Your task to perform on an android device: toggle location history Image 0: 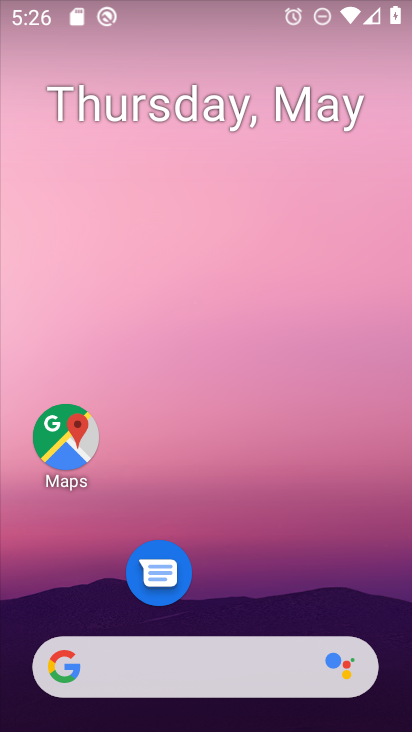
Step 0: drag from (243, 587) to (238, 13)
Your task to perform on an android device: toggle location history Image 1: 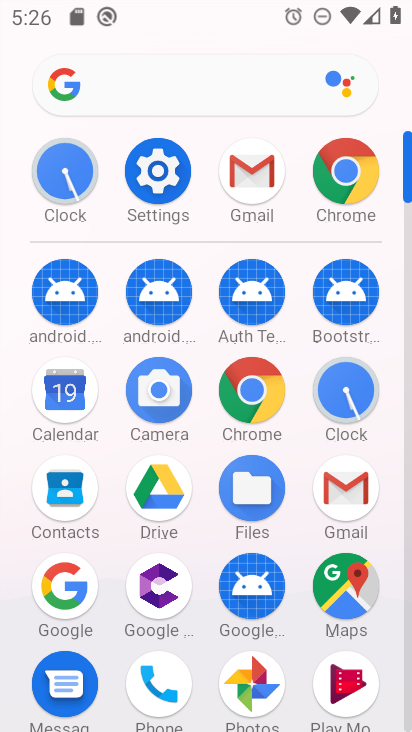
Step 1: click (152, 170)
Your task to perform on an android device: toggle location history Image 2: 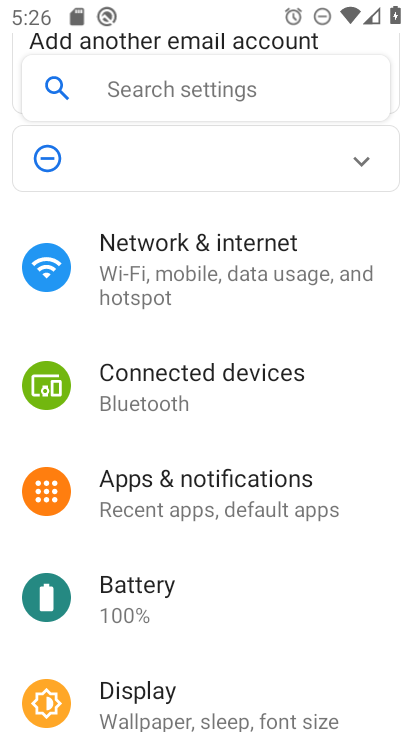
Step 2: drag from (184, 592) to (211, 131)
Your task to perform on an android device: toggle location history Image 3: 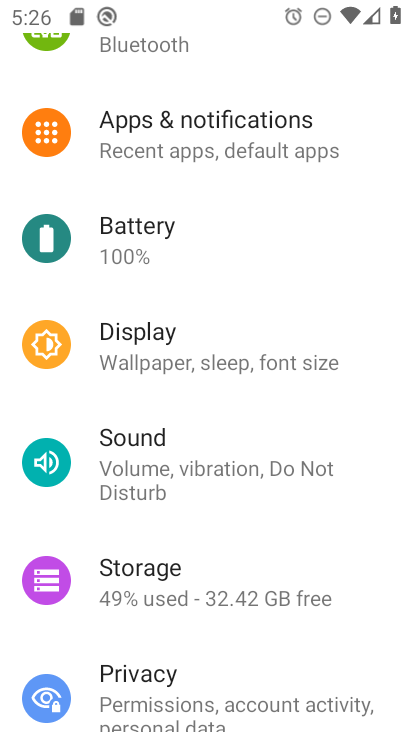
Step 3: drag from (189, 417) to (203, 181)
Your task to perform on an android device: toggle location history Image 4: 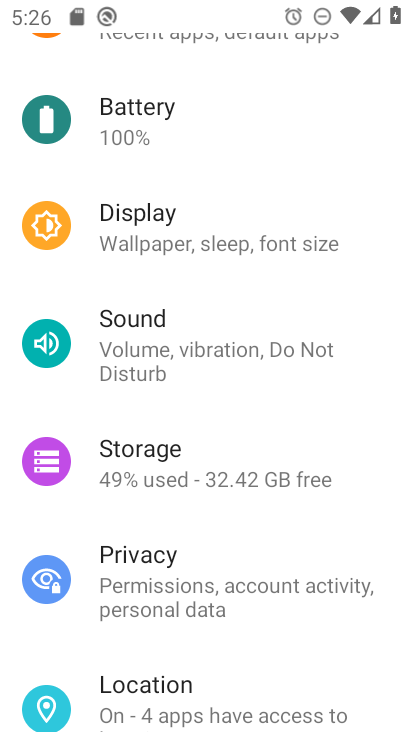
Step 4: click (117, 706)
Your task to perform on an android device: toggle location history Image 5: 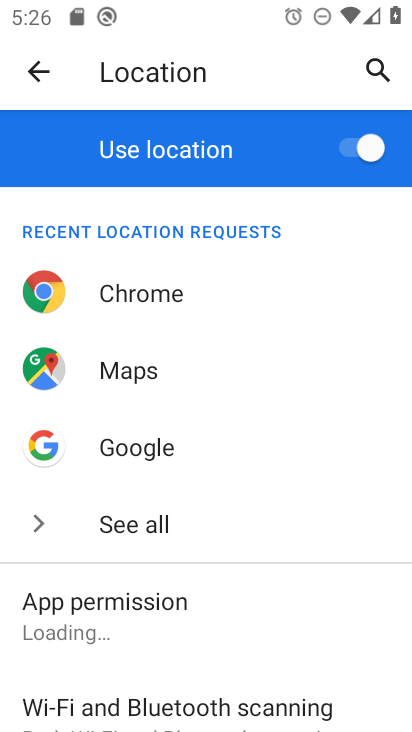
Step 5: drag from (178, 509) to (178, 279)
Your task to perform on an android device: toggle location history Image 6: 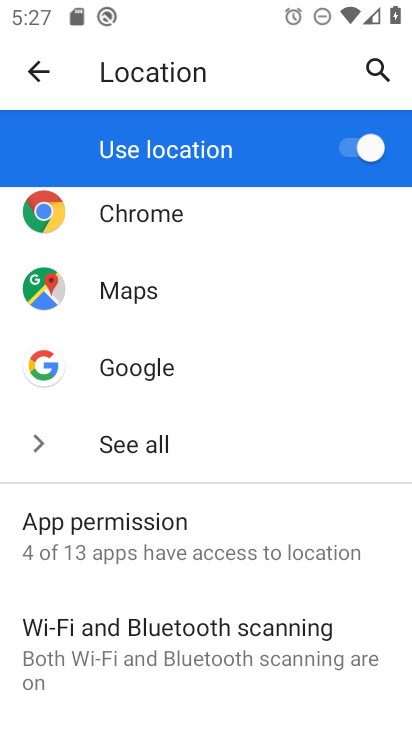
Step 6: drag from (169, 664) to (191, 294)
Your task to perform on an android device: toggle location history Image 7: 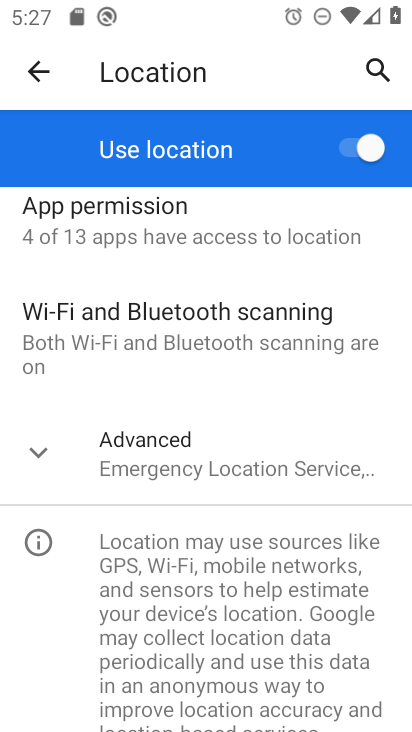
Step 7: click (125, 456)
Your task to perform on an android device: toggle location history Image 8: 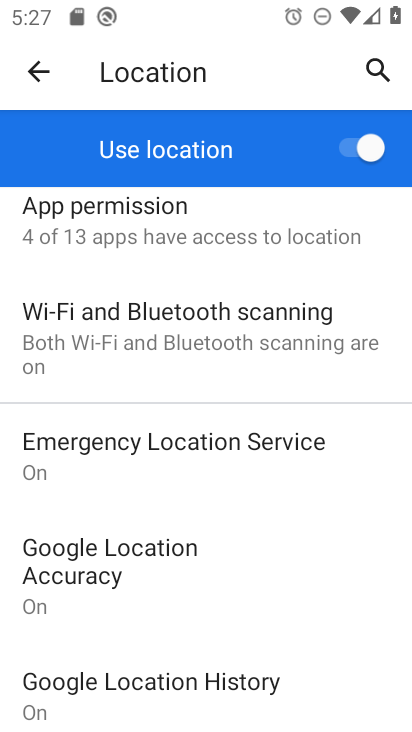
Step 8: click (177, 697)
Your task to perform on an android device: toggle location history Image 9: 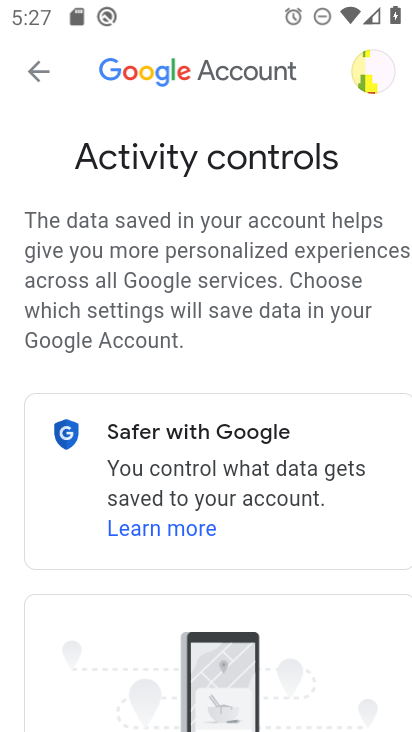
Step 9: drag from (239, 412) to (204, 171)
Your task to perform on an android device: toggle location history Image 10: 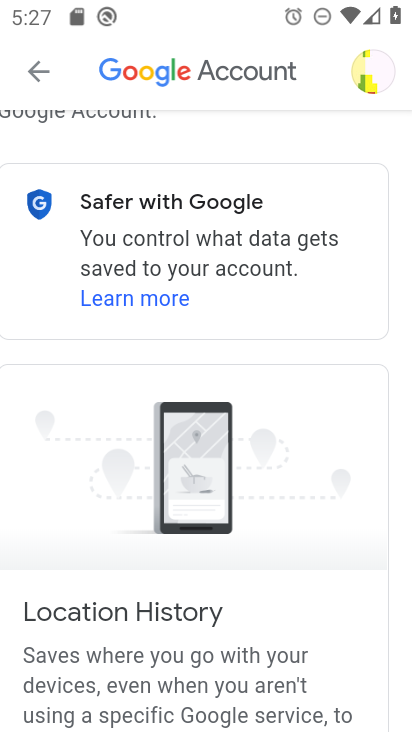
Step 10: drag from (132, 695) to (204, 212)
Your task to perform on an android device: toggle location history Image 11: 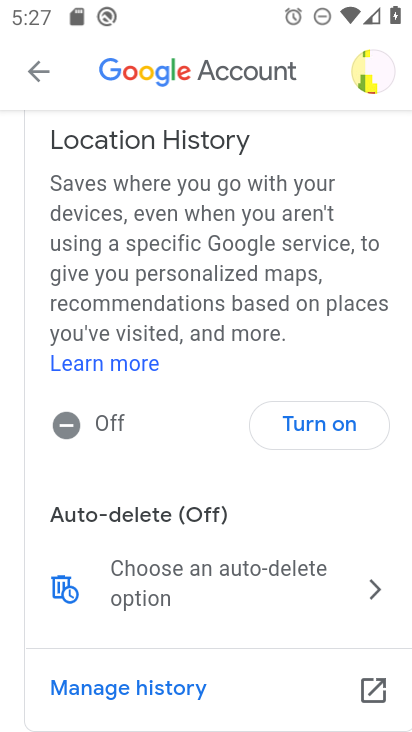
Step 11: click (310, 424)
Your task to perform on an android device: toggle location history Image 12: 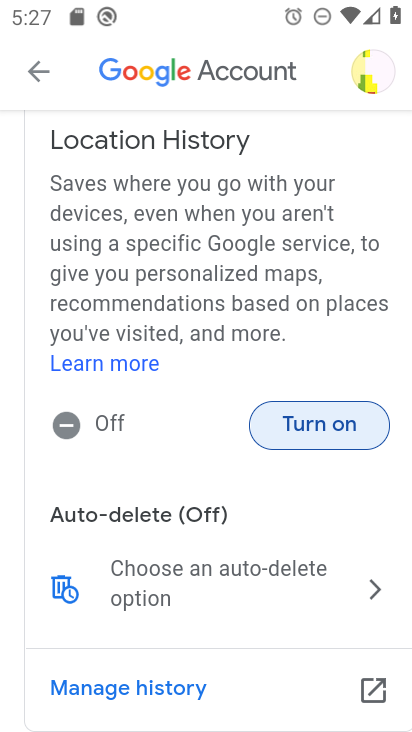
Step 12: click (310, 424)
Your task to perform on an android device: toggle location history Image 13: 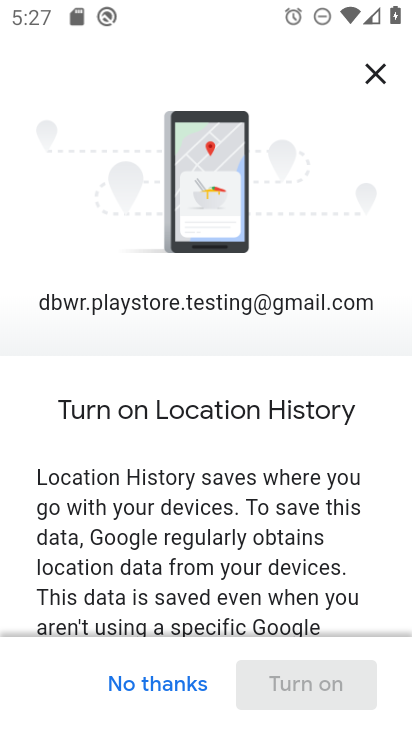
Step 13: drag from (253, 362) to (258, 235)
Your task to perform on an android device: toggle location history Image 14: 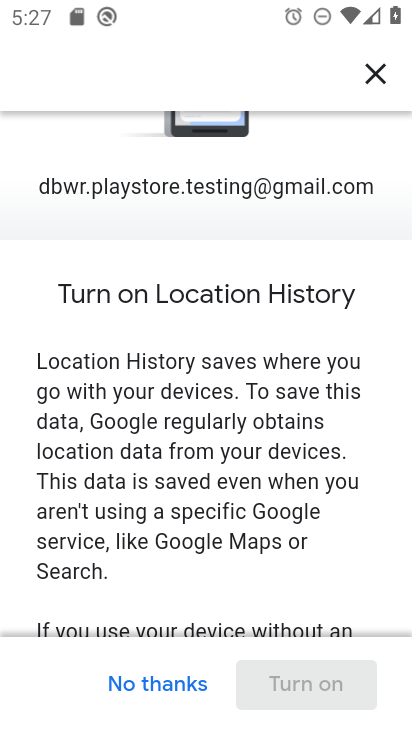
Step 14: drag from (219, 508) to (227, 154)
Your task to perform on an android device: toggle location history Image 15: 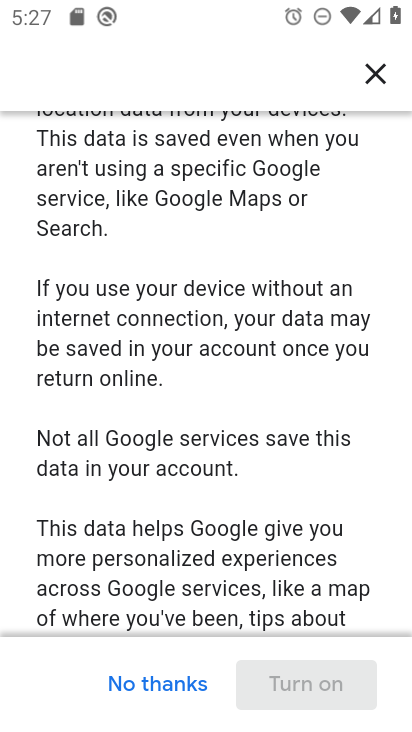
Step 15: drag from (217, 525) to (195, 171)
Your task to perform on an android device: toggle location history Image 16: 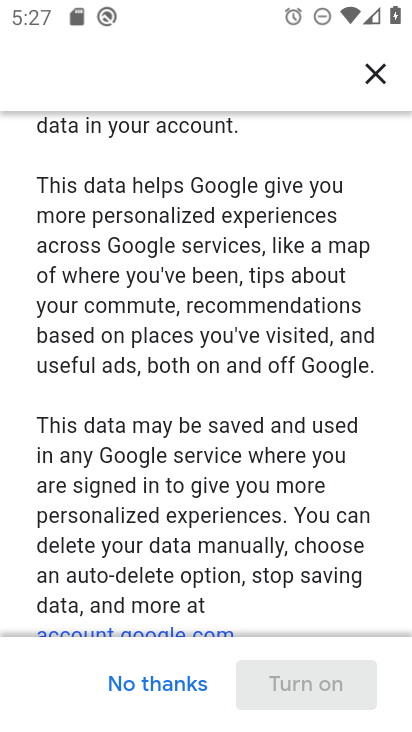
Step 16: drag from (211, 487) to (214, 121)
Your task to perform on an android device: toggle location history Image 17: 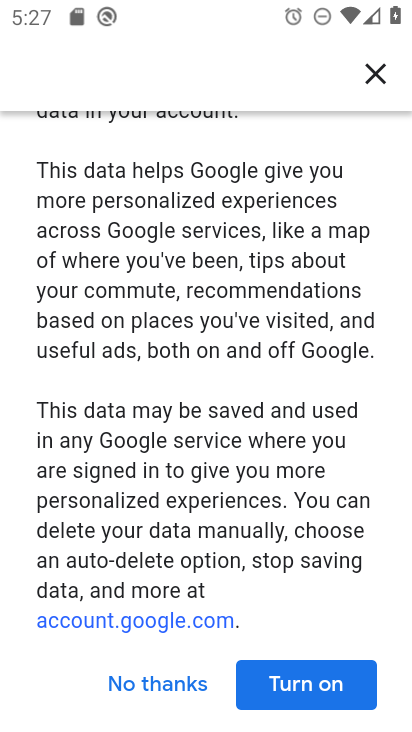
Step 17: click (283, 685)
Your task to perform on an android device: toggle location history Image 18: 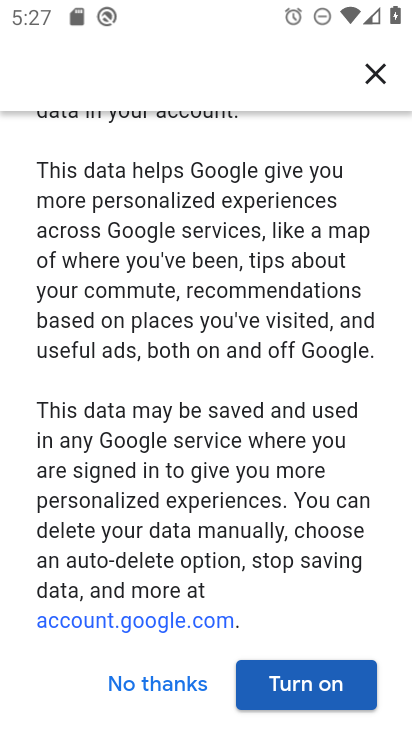
Step 18: click (279, 692)
Your task to perform on an android device: toggle location history Image 19: 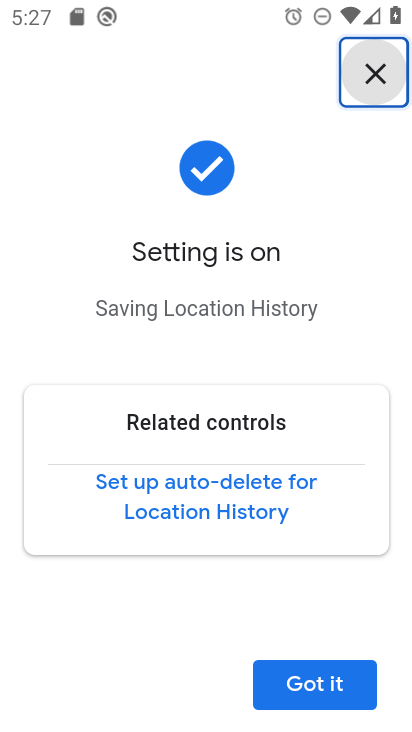
Step 19: click (280, 686)
Your task to perform on an android device: toggle location history Image 20: 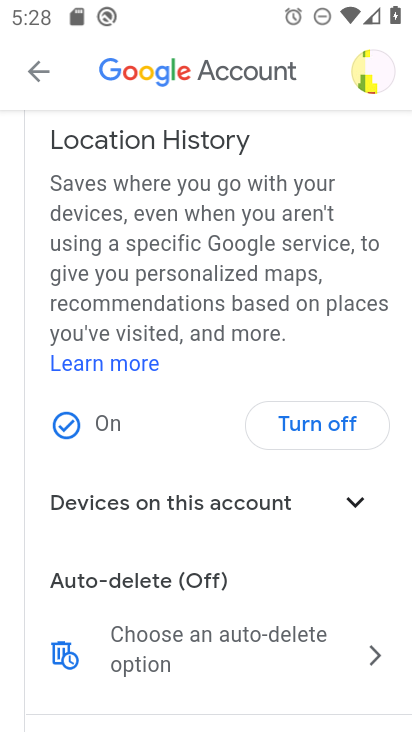
Step 20: task complete